Your task to perform on an android device: Open Chrome and go to settings Image 0: 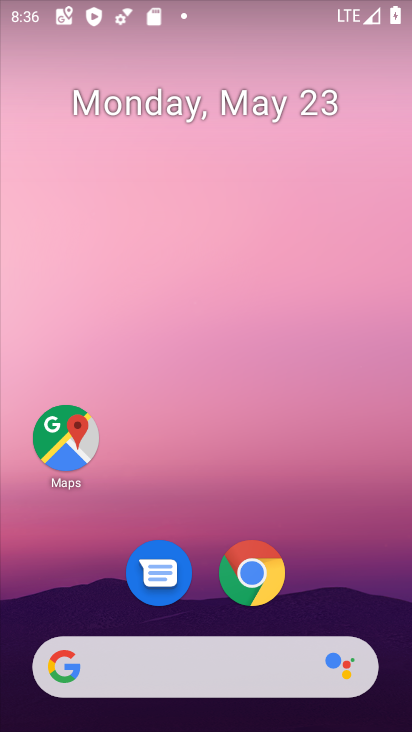
Step 0: click (264, 572)
Your task to perform on an android device: Open Chrome and go to settings Image 1: 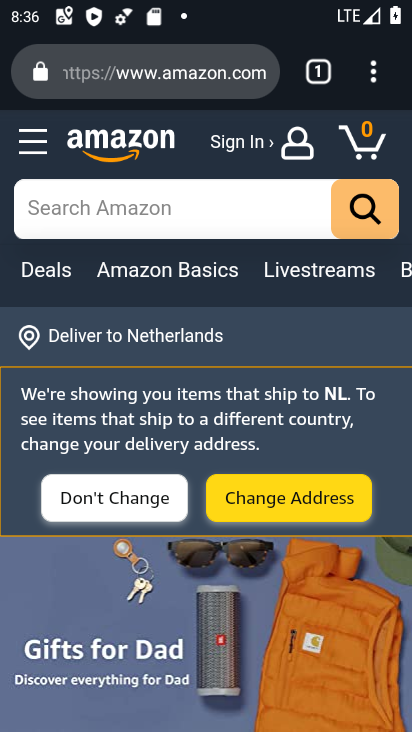
Step 1: click (374, 78)
Your task to perform on an android device: Open Chrome and go to settings Image 2: 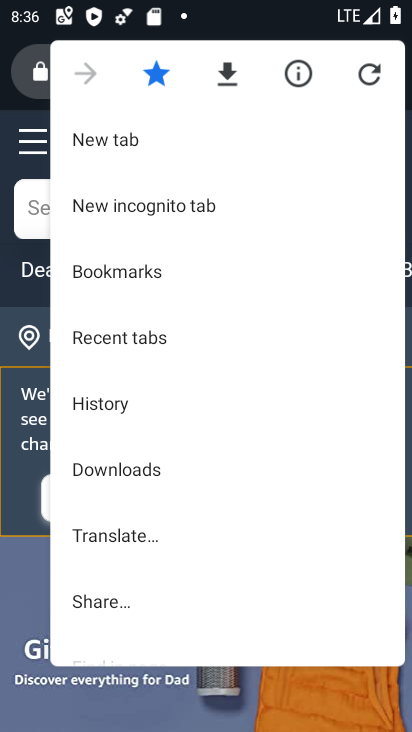
Step 2: drag from (192, 469) to (195, 151)
Your task to perform on an android device: Open Chrome and go to settings Image 3: 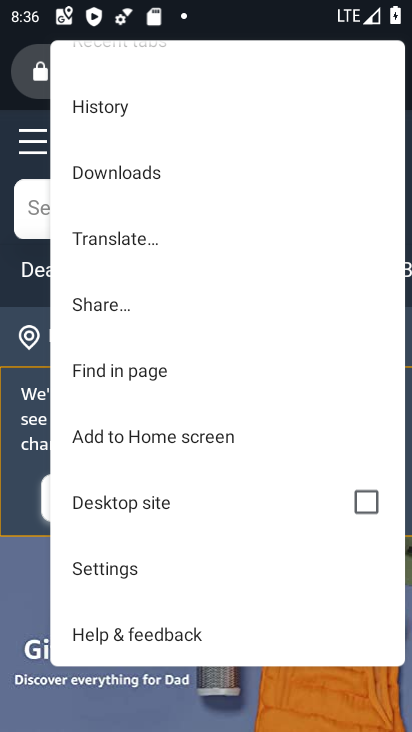
Step 3: click (132, 561)
Your task to perform on an android device: Open Chrome and go to settings Image 4: 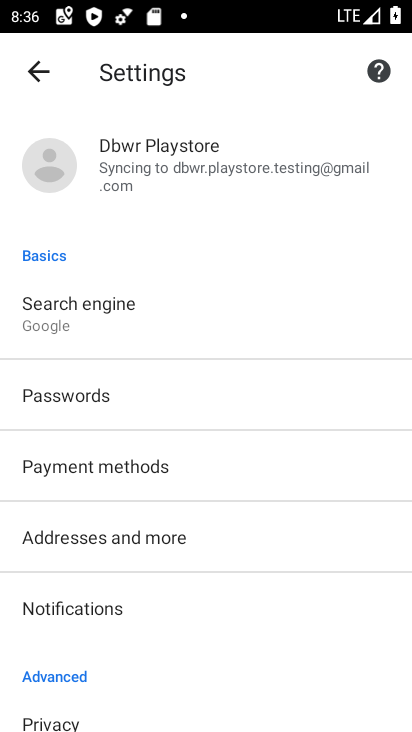
Step 4: task complete